Your task to perform on an android device: turn on wifi Image 0: 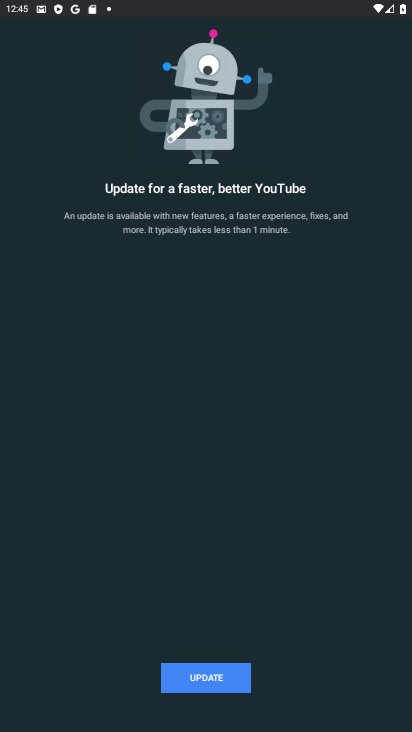
Step 0: press home button
Your task to perform on an android device: turn on wifi Image 1: 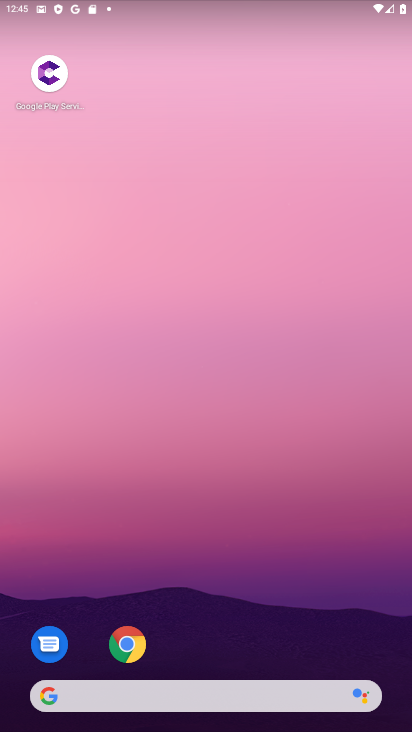
Step 1: drag from (345, 642) to (299, 39)
Your task to perform on an android device: turn on wifi Image 2: 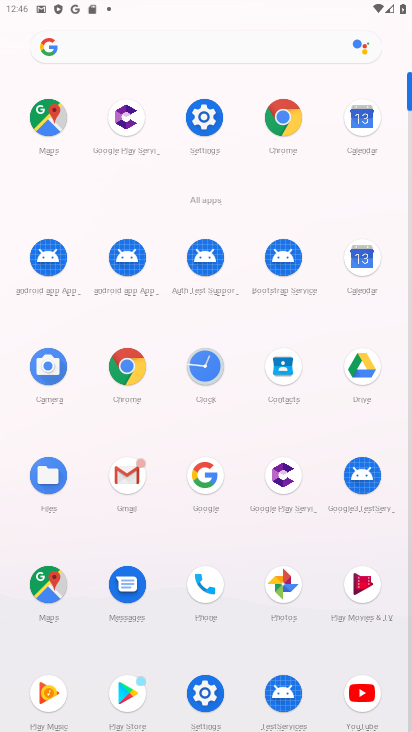
Step 2: click (210, 124)
Your task to perform on an android device: turn on wifi Image 3: 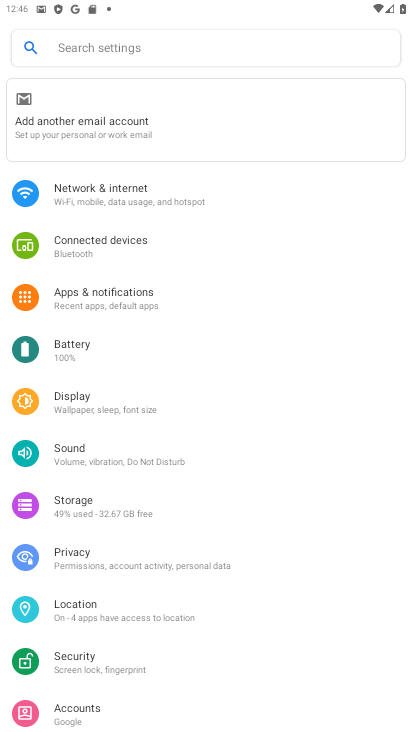
Step 3: click (208, 185)
Your task to perform on an android device: turn on wifi Image 4: 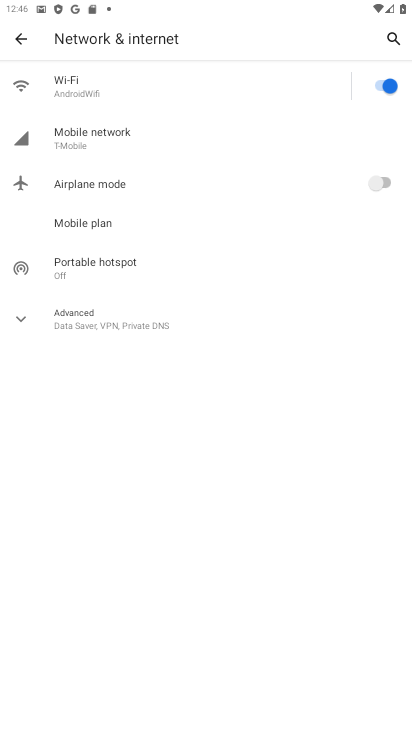
Step 4: task complete